Your task to perform on an android device: open wifi settings Image 0: 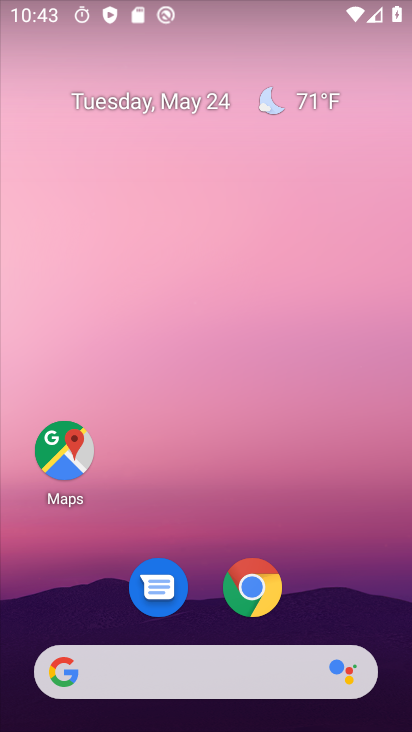
Step 0: drag from (372, 658) to (169, 21)
Your task to perform on an android device: open wifi settings Image 1: 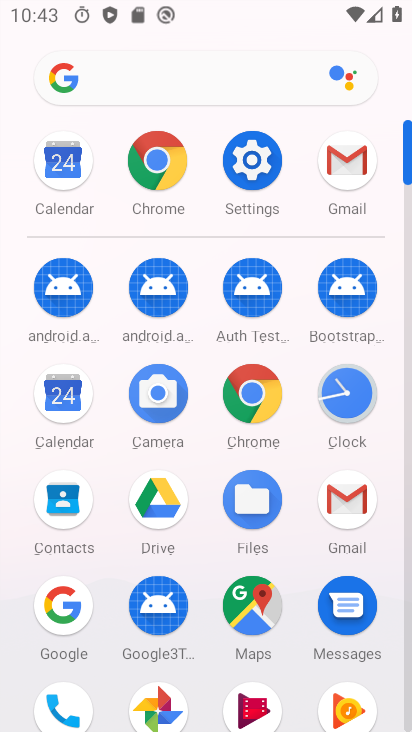
Step 1: click (249, 153)
Your task to perform on an android device: open wifi settings Image 2: 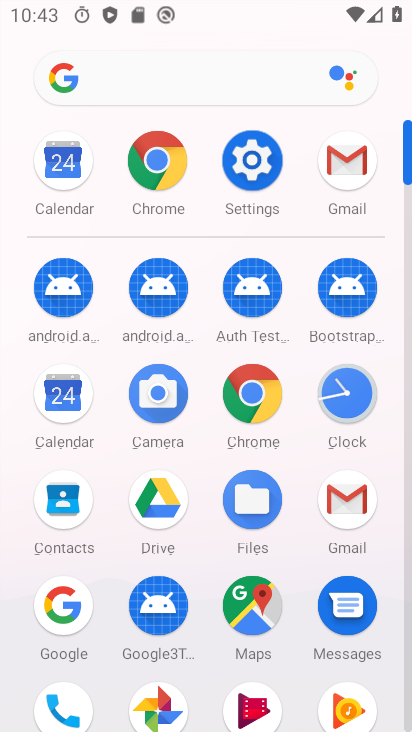
Step 2: click (266, 153)
Your task to perform on an android device: open wifi settings Image 3: 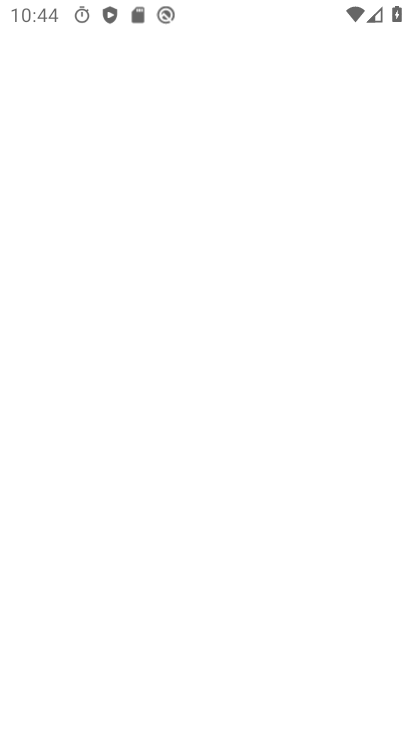
Step 3: click (266, 153)
Your task to perform on an android device: open wifi settings Image 4: 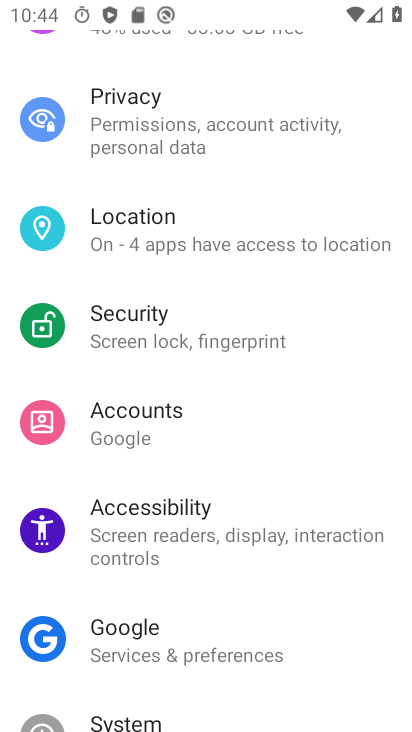
Step 4: drag from (171, 242) to (269, 553)
Your task to perform on an android device: open wifi settings Image 5: 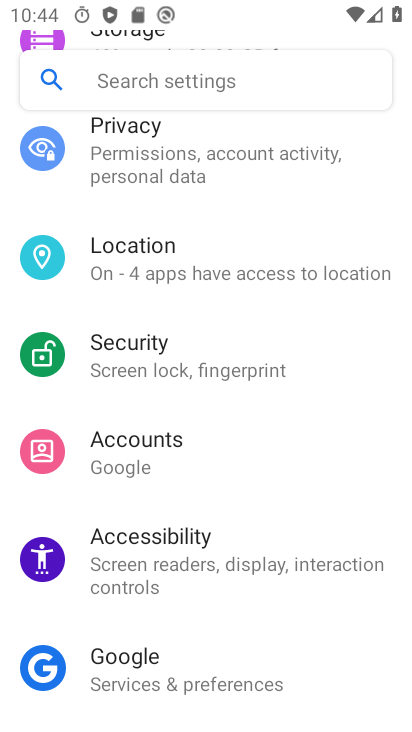
Step 5: drag from (140, 216) to (234, 669)
Your task to perform on an android device: open wifi settings Image 6: 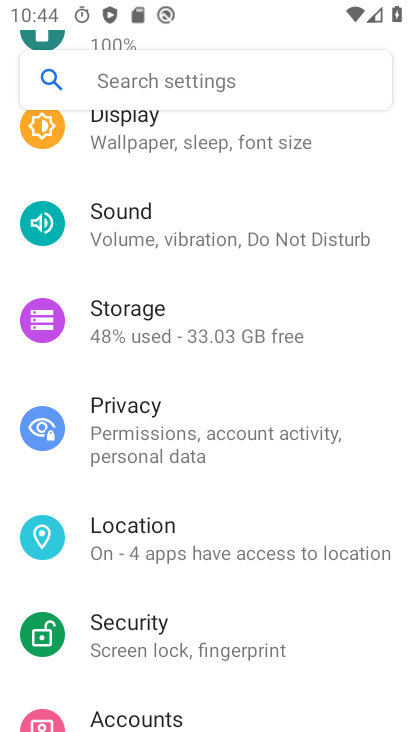
Step 6: drag from (247, 668) to (273, 606)
Your task to perform on an android device: open wifi settings Image 7: 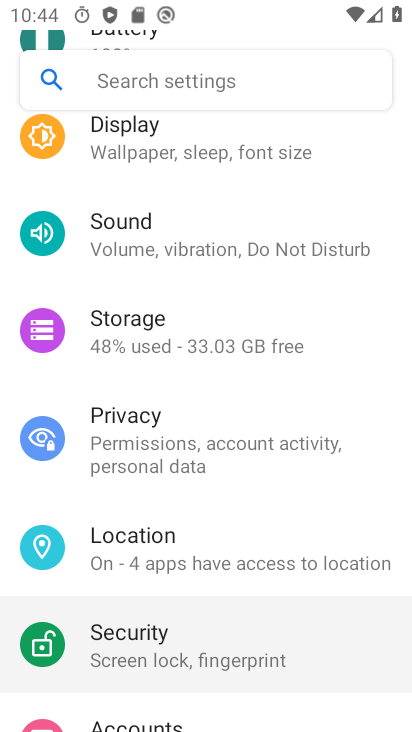
Step 7: drag from (208, 251) to (253, 545)
Your task to perform on an android device: open wifi settings Image 8: 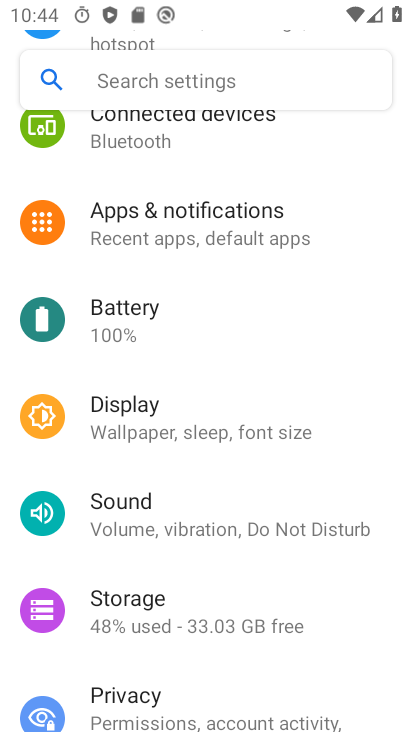
Step 8: drag from (177, 611) to (222, 678)
Your task to perform on an android device: open wifi settings Image 9: 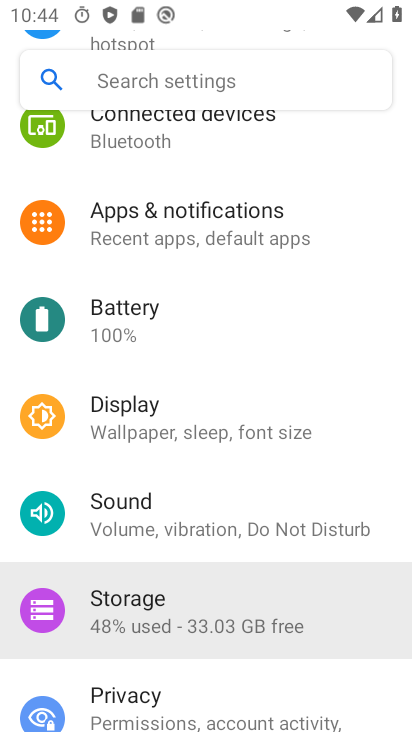
Step 9: drag from (220, 507) to (230, 663)
Your task to perform on an android device: open wifi settings Image 10: 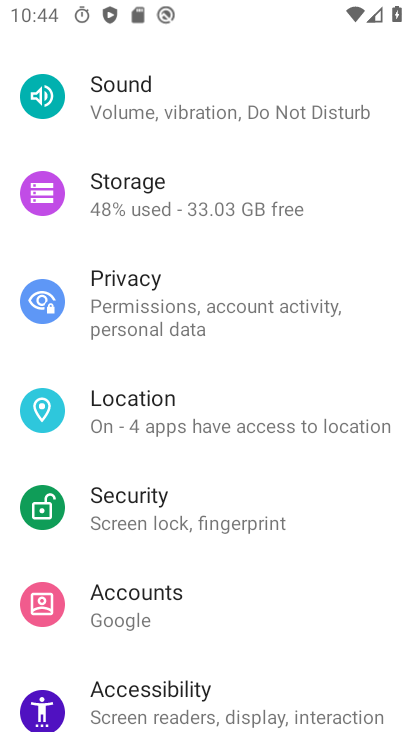
Step 10: drag from (234, 545) to (229, 580)
Your task to perform on an android device: open wifi settings Image 11: 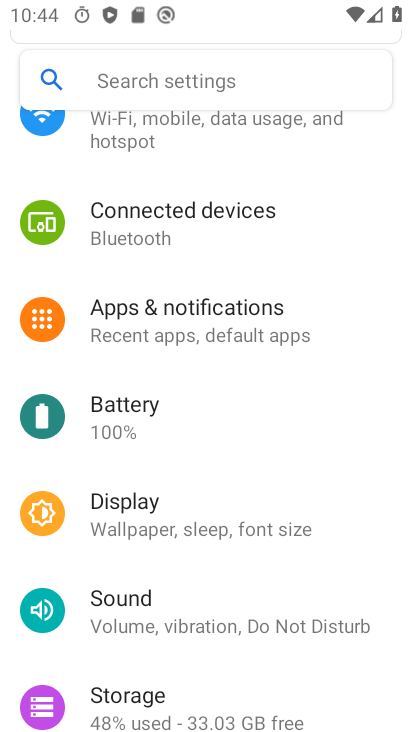
Step 11: drag from (202, 210) to (232, 603)
Your task to perform on an android device: open wifi settings Image 12: 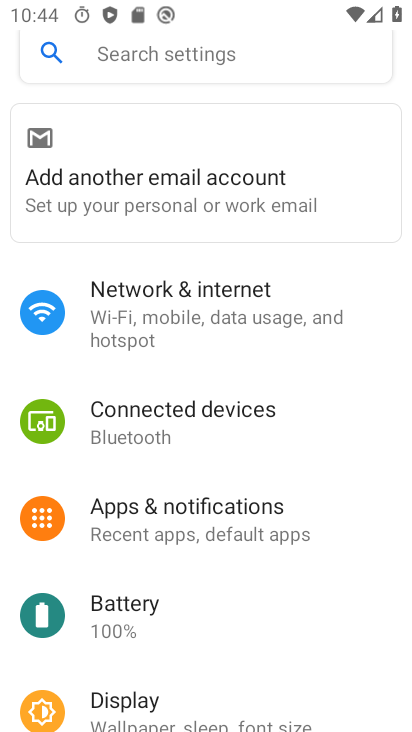
Step 12: drag from (125, 267) to (166, 558)
Your task to perform on an android device: open wifi settings Image 13: 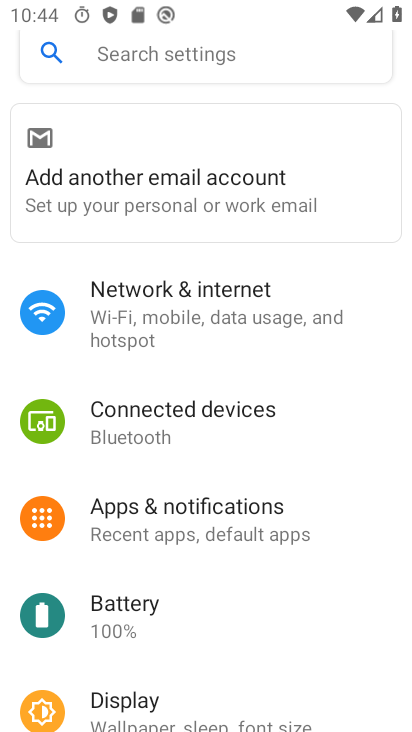
Step 13: drag from (138, 165) to (210, 666)
Your task to perform on an android device: open wifi settings Image 14: 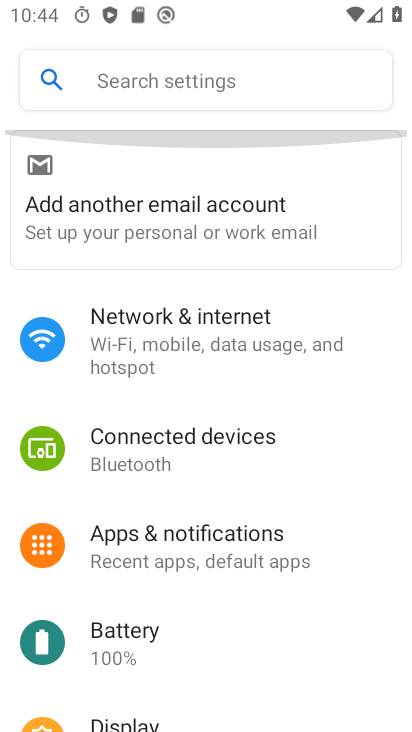
Step 14: drag from (103, 211) to (158, 620)
Your task to perform on an android device: open wifi settings Image 15: 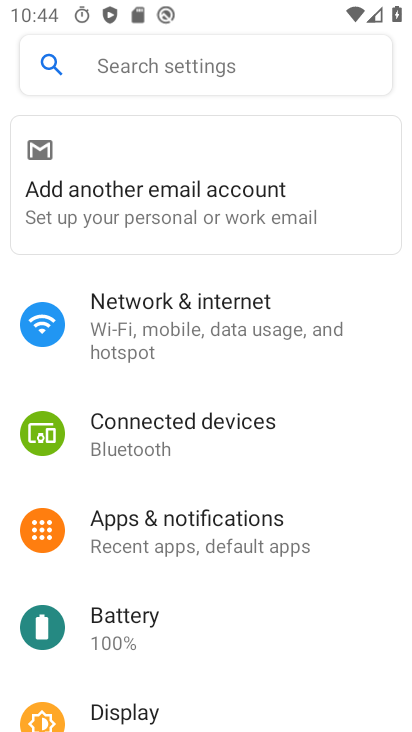
Step 15: click (189, 325)
Your task to perform on an android device: open wifi settings Image 16: 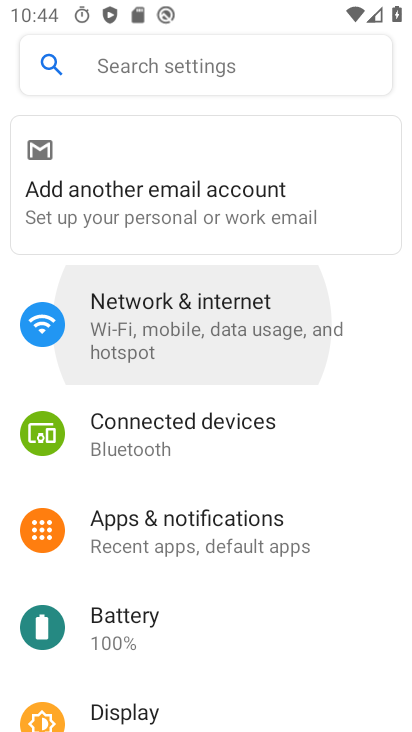
Step 16: click (189, 325)
Your task to perform on an android device: open wifi settings Image 17: 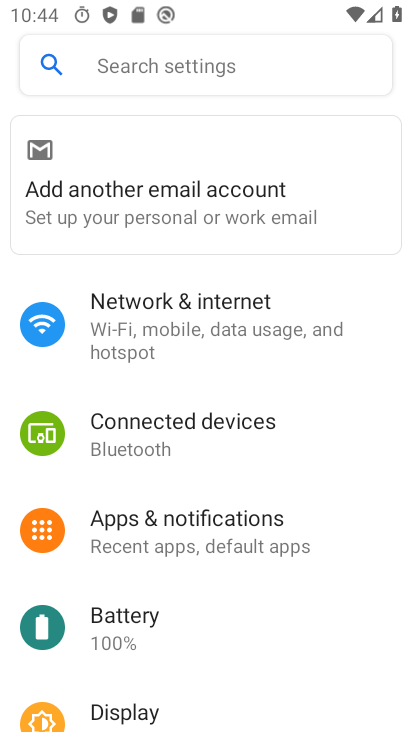
Step 17: click (190, 326)
Your task to perform on an android device: open wifi settings Image 18: 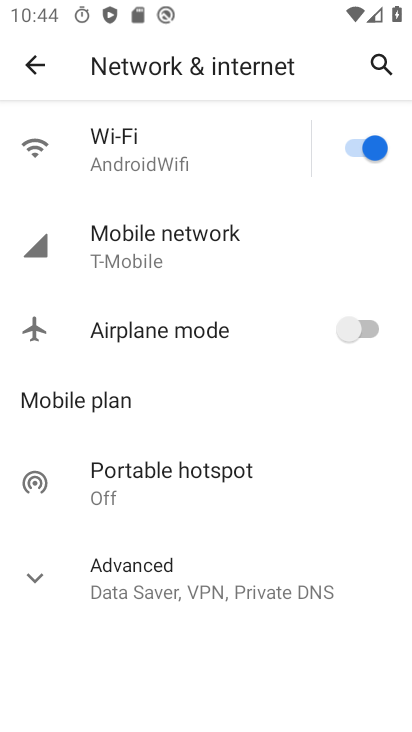
Step 18: task complete